Your task to perform on an android device: Search for Italian restaurants on Maps Image 0: 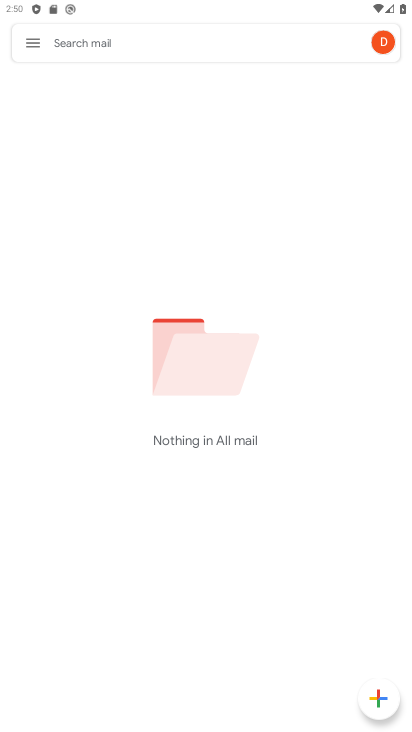
Step 0: press home button
Your task to perform on an android device: Search for Italian restaurants on Maps Image 1: 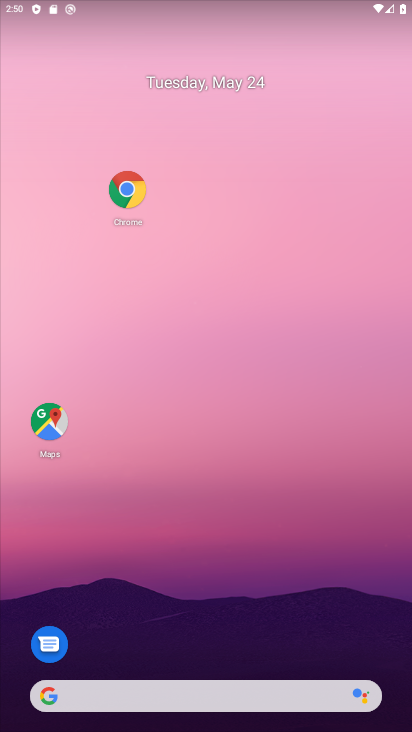
Step 1: click (49, 430)
Your task to perform on an android device: Search for Italian restaurants on Maps Image 2: 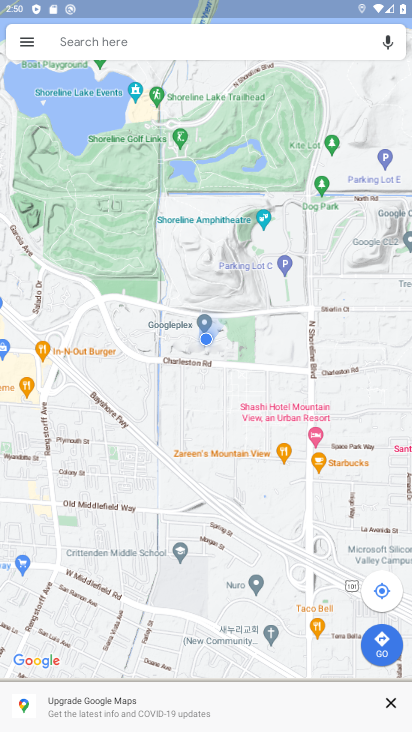
Step 2: click (209, 48)
Your task to perform on an android device: Search for Italian restaurants on Maps Image 3: 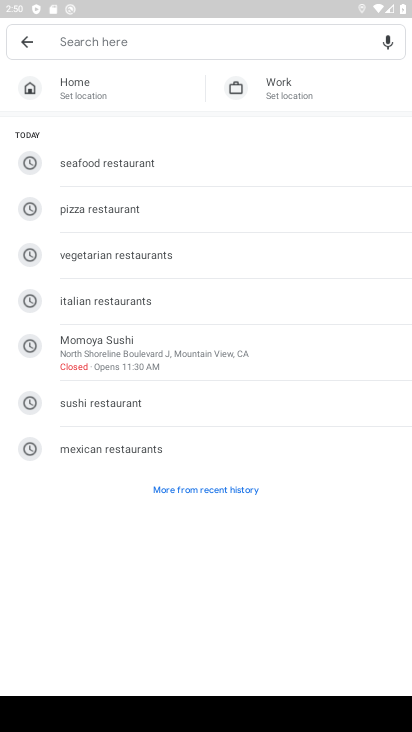
Step 3: click (122, 292)
Your task to perform on an android device: Search for Italian restaurants on Maps Image 4: 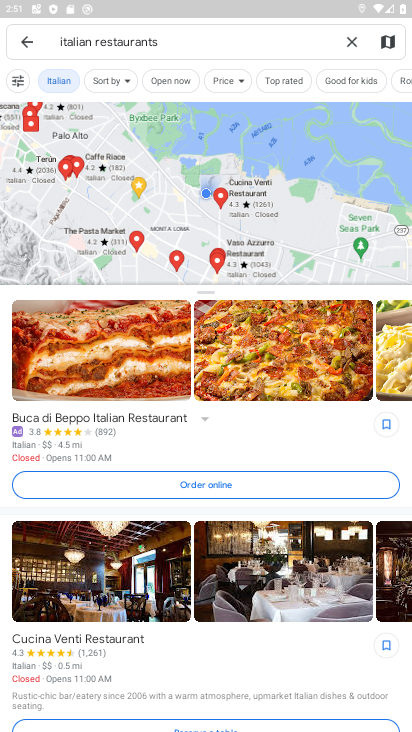
Step 4: task complete